Your task to perform on an android device: turn off picture-in-picture Image 0: 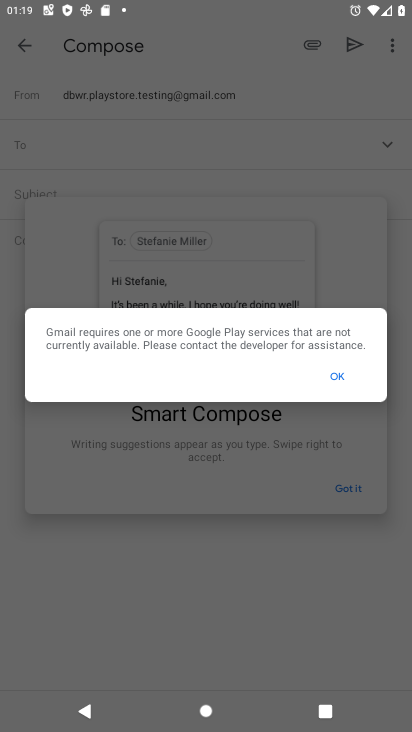
Step 0: press home button
Your task to perform on an android device: turn off picture-in-picture Image 1: 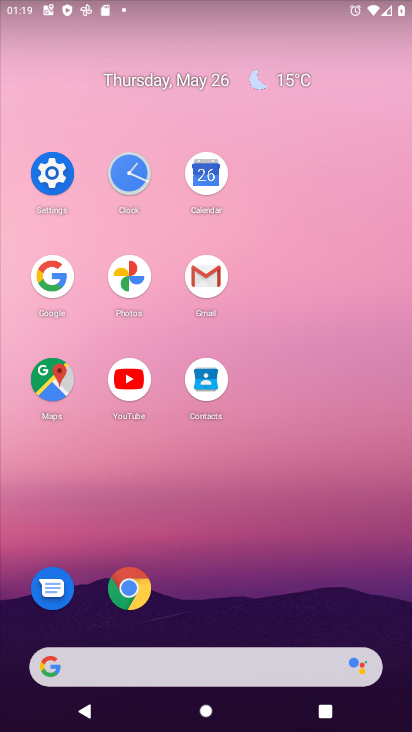
Step 1: click (134, 594)
Your task to perform on an android device: turn off picture-in-picture Image 2: 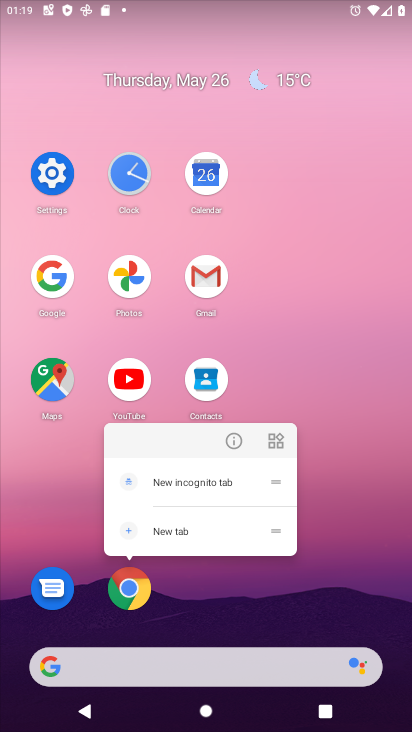
Step 2: click (226, 443)
Your task to perform on an android device: turn off picture-in-picture Image 3: 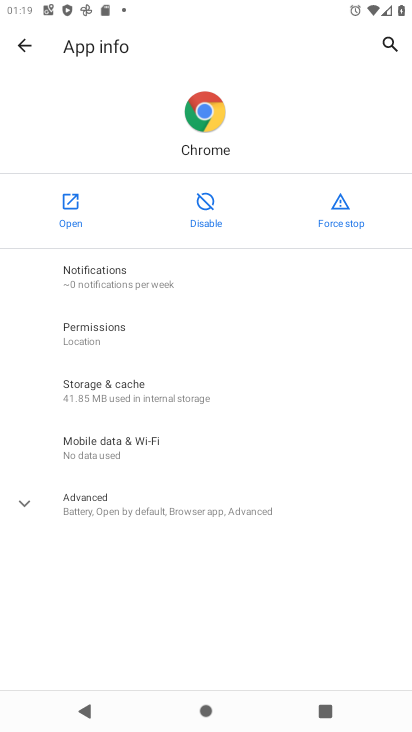
Step 3: click (203, 512)
Your task to perform on an android device: turn off picture-in-picture Image 4: 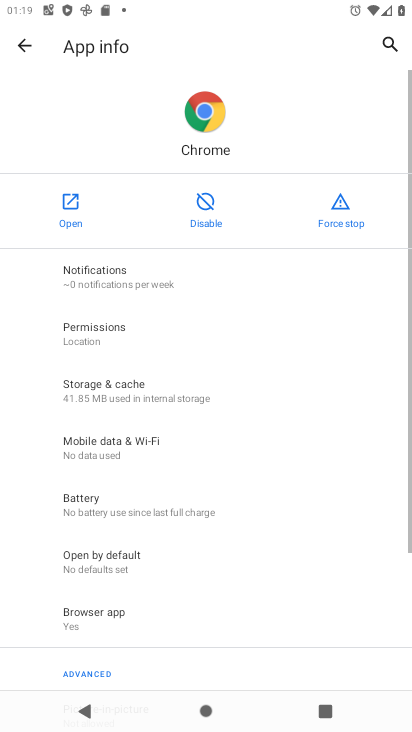
Step 4: drag from (219, 583) to (178, 167)
Your task to perform on an android device: turn off picture-in-picture Image 5: 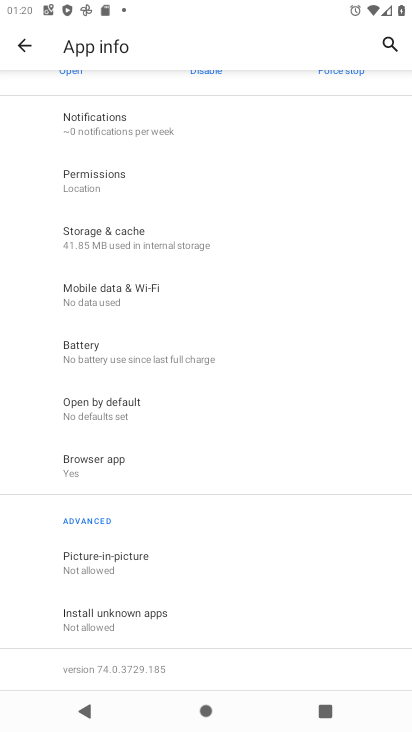
Step 5: click (185, 557)
Your task to perform on an android device: turn off picture-in-picture Image 6: 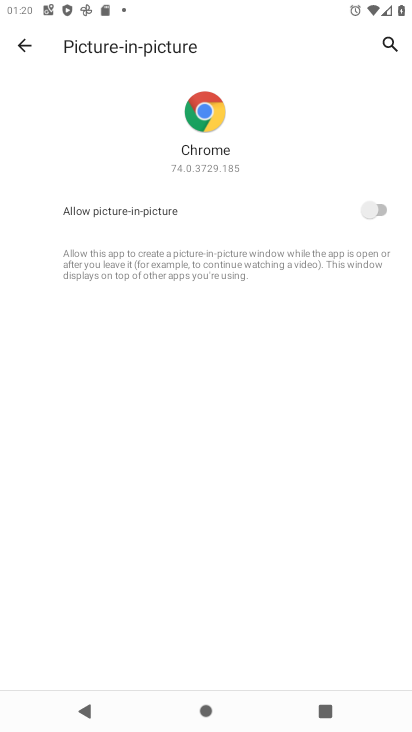
Step 6: task complete